Your task to perform on an android device: What's the weather? Image 0: 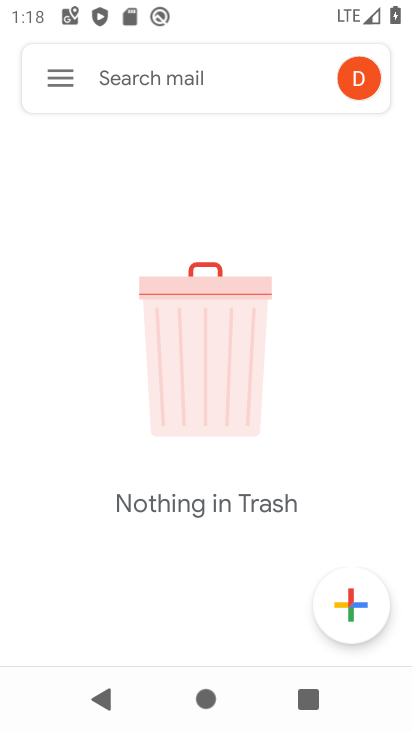
Step 0: press home button
Your task to perform on an android device: What's the weather? Image 1: 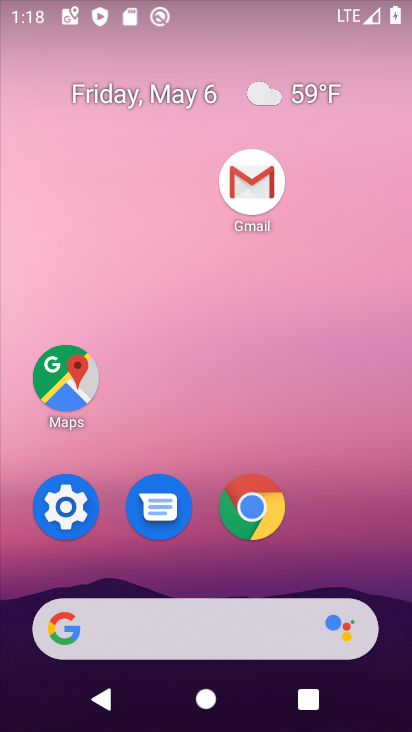
Step 1: click (300, 89)
Your task to perform on an android device: What's the weather? Image 2: 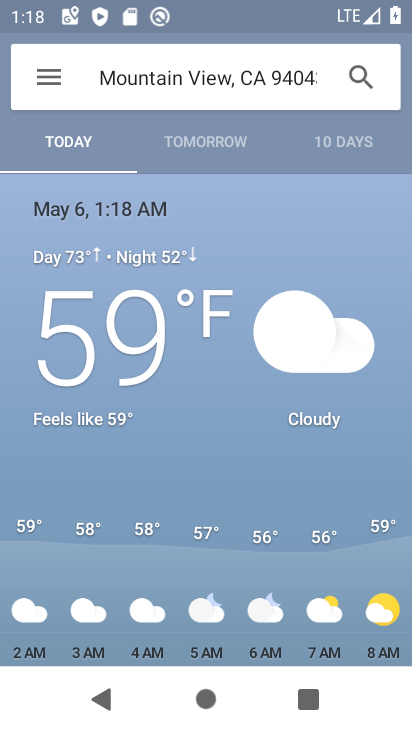
Step 2: task complete